Your task to perform on an android device: Open the phone app and click the voicemail tab. Image 0: 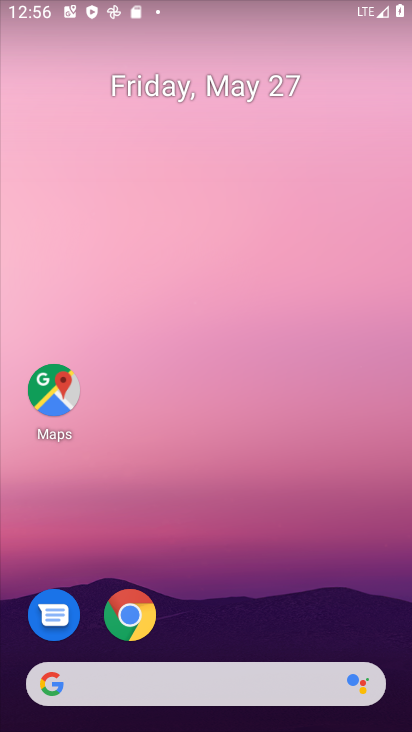
Step 0: drag from (278, 609) to (315, 108)
Your task to perform on an android device: Open the phone app and click the voicemail tab. Image 1: 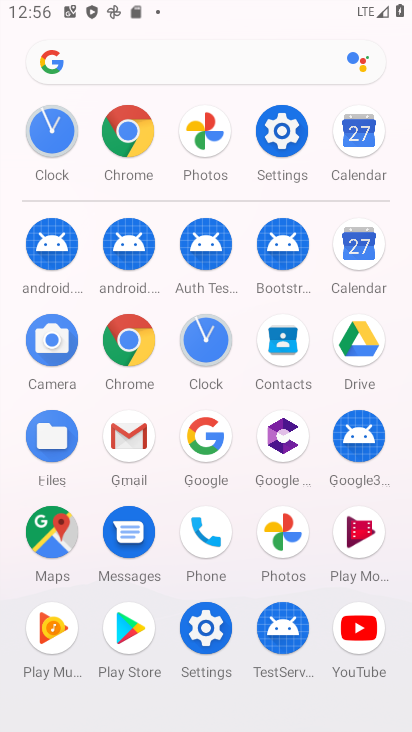
Step 1: click (209, 527)
Your task to perform on an android device: Open the phone app and click the voicemail tab. Image 2: 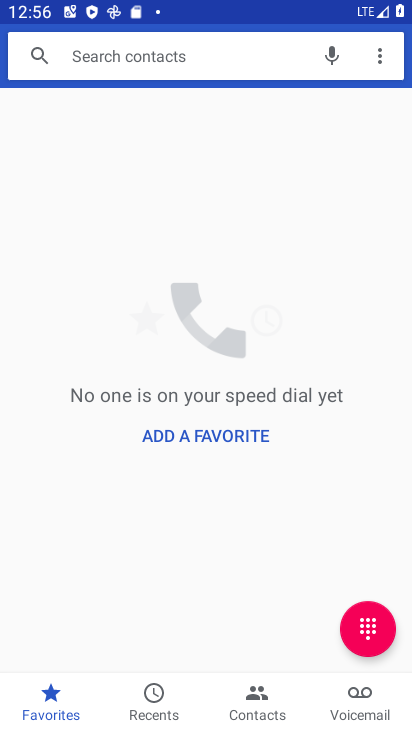
Step 2: click (349, 682)
Your task to perform on an android device: Open the phone app and click the voicemail tab. Image 3: 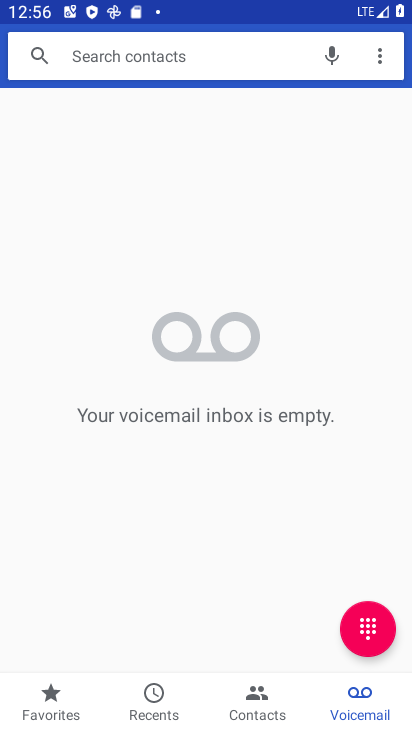
Step 3: task complete